Your task to perform on an android device: Go to location settings Image 0: 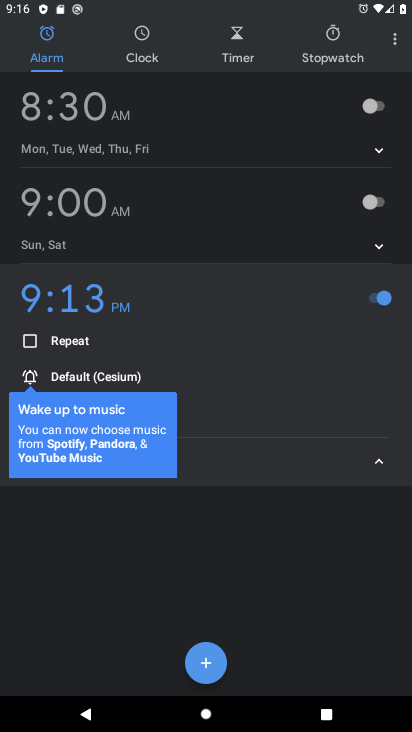
Step 0: press back button
Your task to perform on an android device: Go to location settings Image 1: 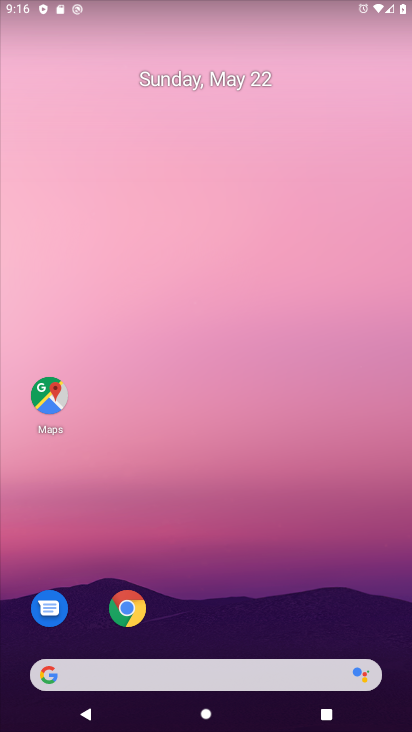
Step 1: drag from (226, 608) to (226, 32)
Your task to perform on an android device: Go to location settings Image 2: 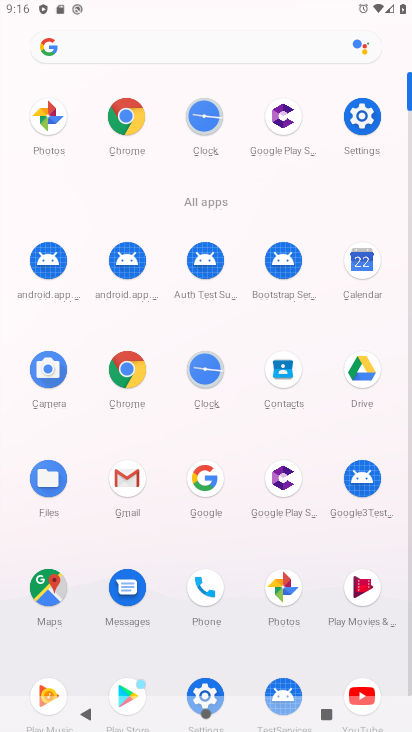
Step 2: click (361, 112)
Your task to perform on an android device: Go to location settings Image 3: 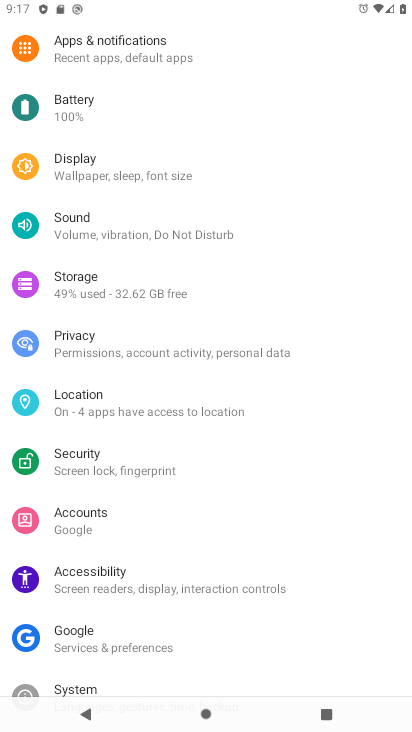
Step 3: click (104, 397)
Your task to perform on an android device: Go to location settings Image 4: 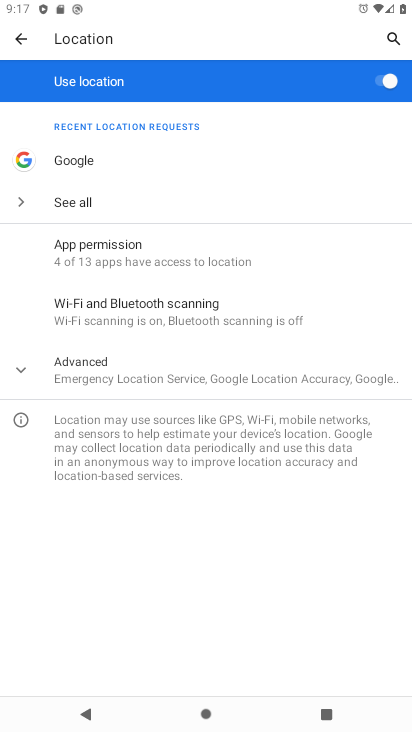
Step 4: click (16, 373)
Your task to perform on an android device: Go to location settings Image 5: 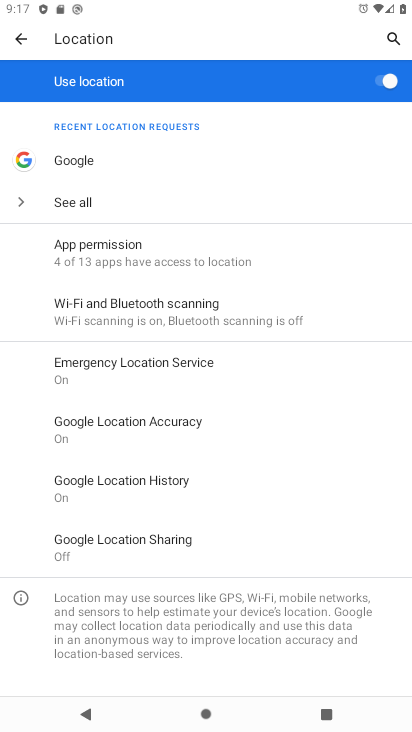
Step 5: task complete